Your task to perform on an android device: Go to wifi settings Image 0: 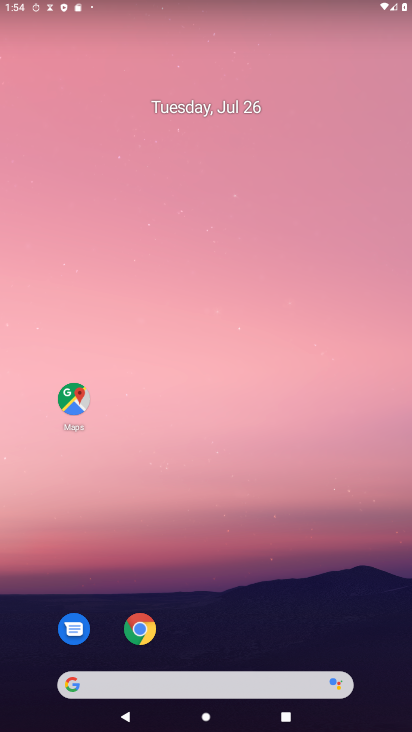
Step 0: drag from (275, 633) to (256, 132)
Your task to perform on an android device: Go to wifi settings Image 1: 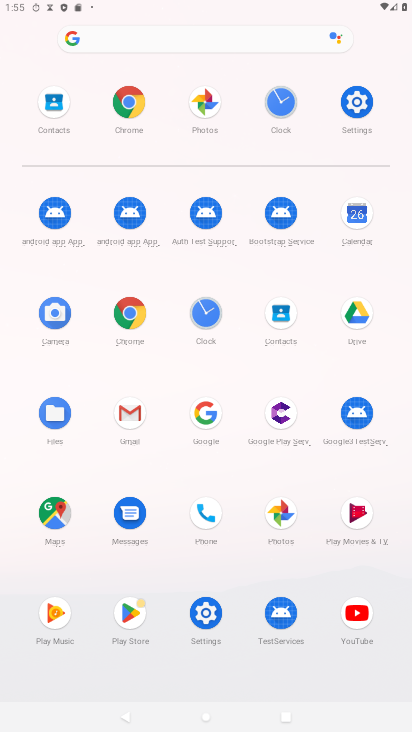
Step 1: click (346, 105)
Your task to perform on an android device: Go to wifi settings Image 2: 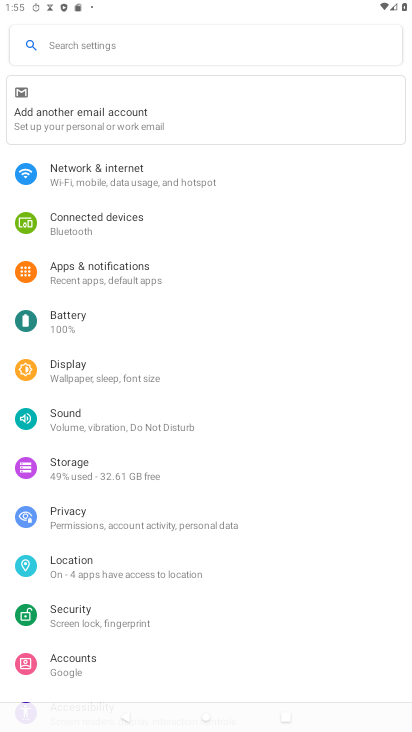
Step 2: click (167, 168)
Your task to perform on an android device: Go to wifi settings Image 3: 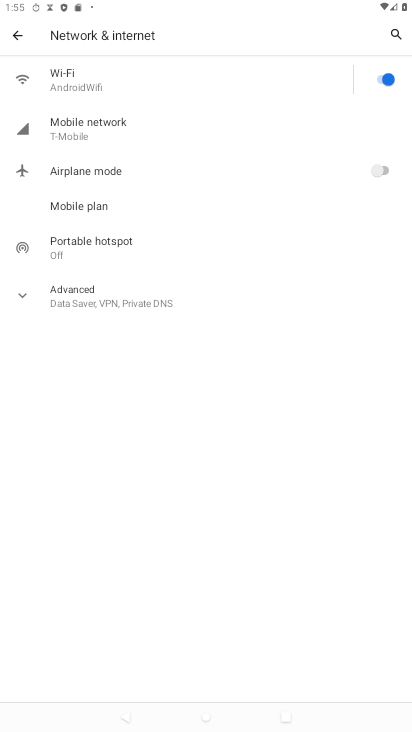
Step 3: click (135, 71)
Your task to perform on an android device: Go to wifi settings Image 4: 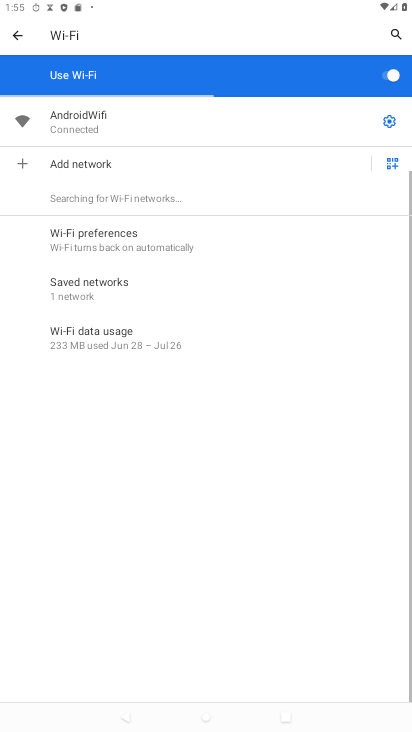
Step 4: task complete